Your task to perform on an android device: toggle javascript in the chrome app Image 0: 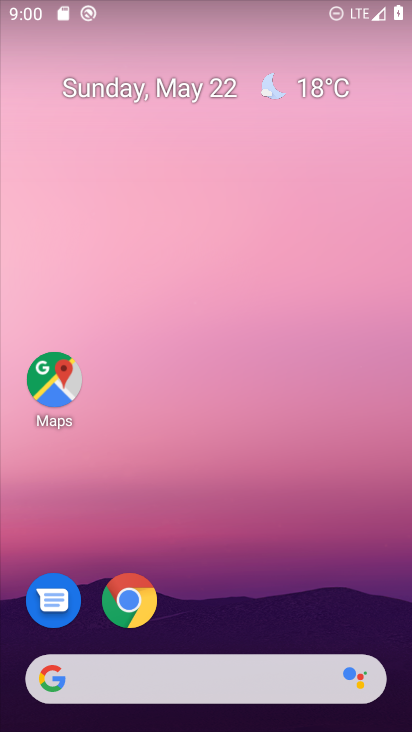
Step 0: drag from (324, 616) to (259, 126)
Your task to perform on an android device: toggle javascript in the chrome app Image 1: 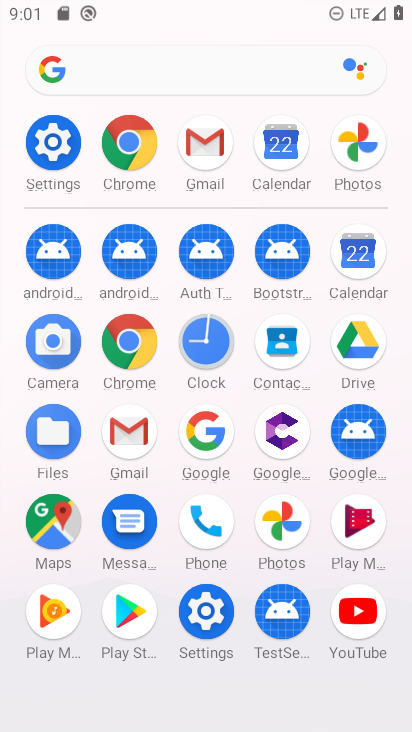
Step 1: click (141, 347)
Your task to perform on an android device: toggle javascript in the chrome app Image 2: 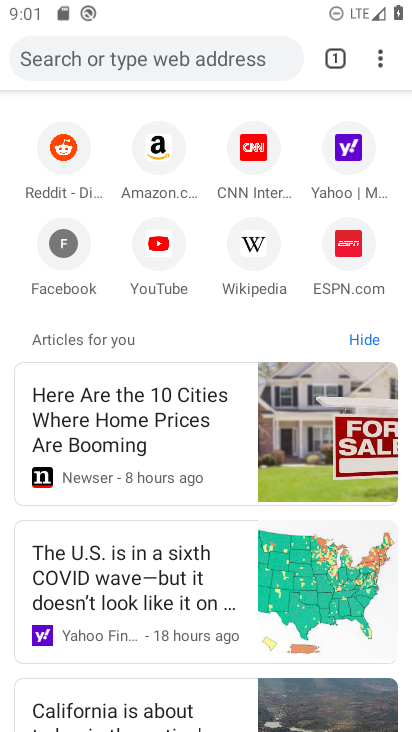
Step 2: click (381, 52)
Your task to perform on an android device: toggle javascript in the chrome app Image 3: 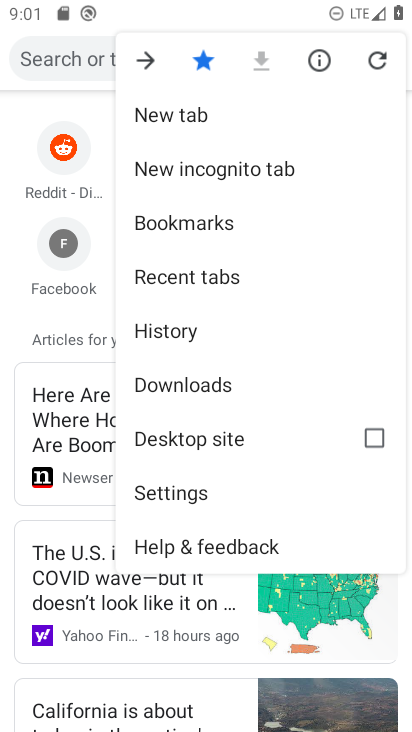
Step 3: click (235, 500)
Your task to perform on an android device: toggle javascript in the chrome app Image 4: 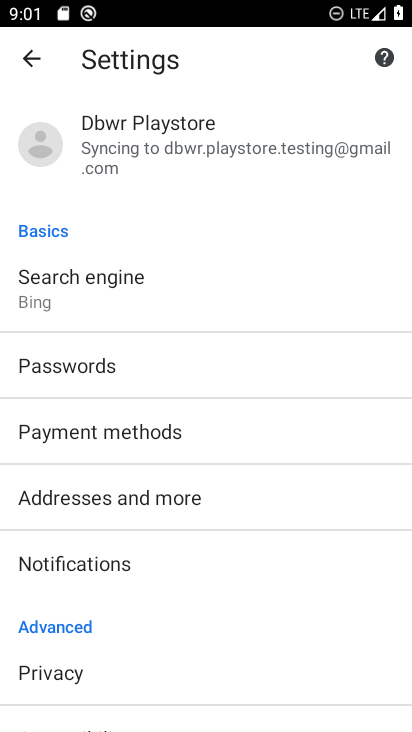
Step 4: drag from (193, 654) to (178, 338)
Your task to perform on an android device: toggle javascript in the chrome app Image 5: 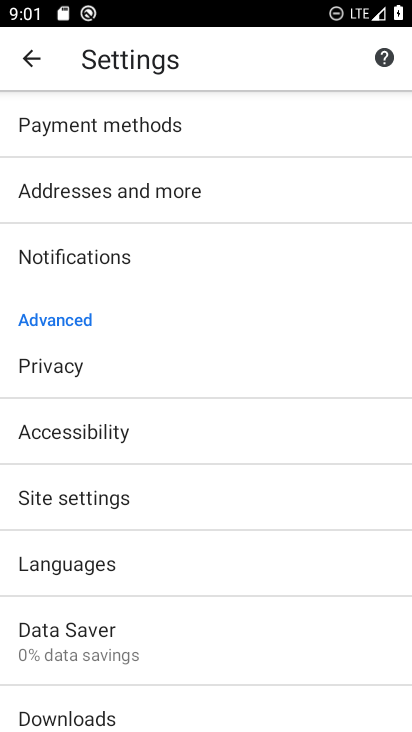
Step 5: click (104, 488)
Your task to perform on an android device: toggle javascript in the chrome app Image 6: 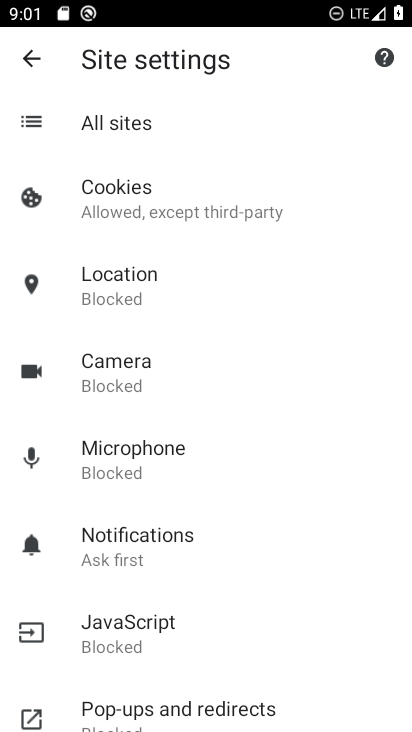
Step 6: click (183, 669)
Your task to perform on an android device: toggle javascript in the chrome app Image 7: 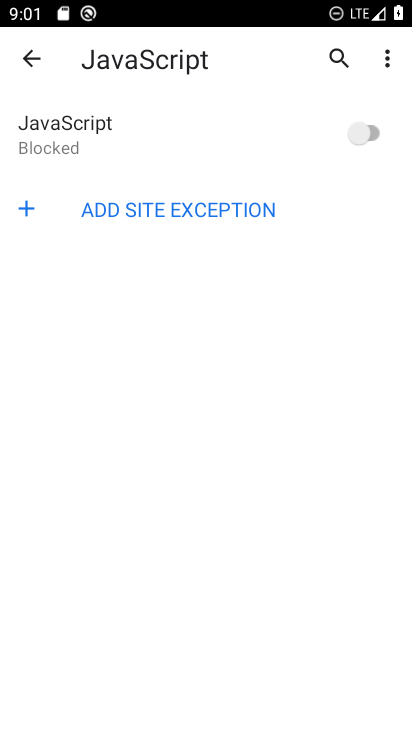
Step 7: click (360, 137)
Your task to perform on an android device: toggle javascript in the chrome app Image 8: 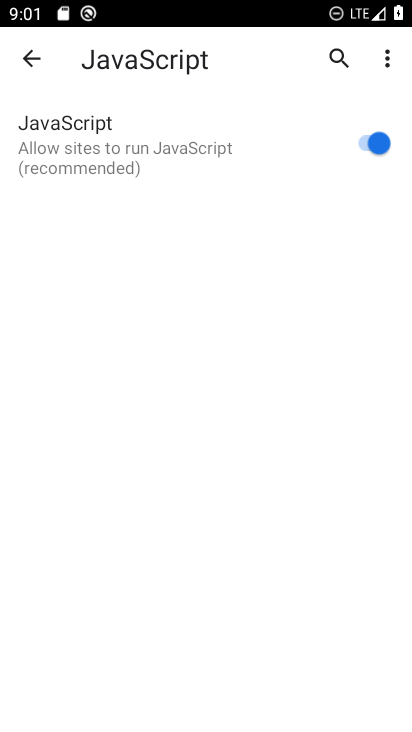
Step 8: task complete